Your task to perform on an android device: What's the weather? Image 0: 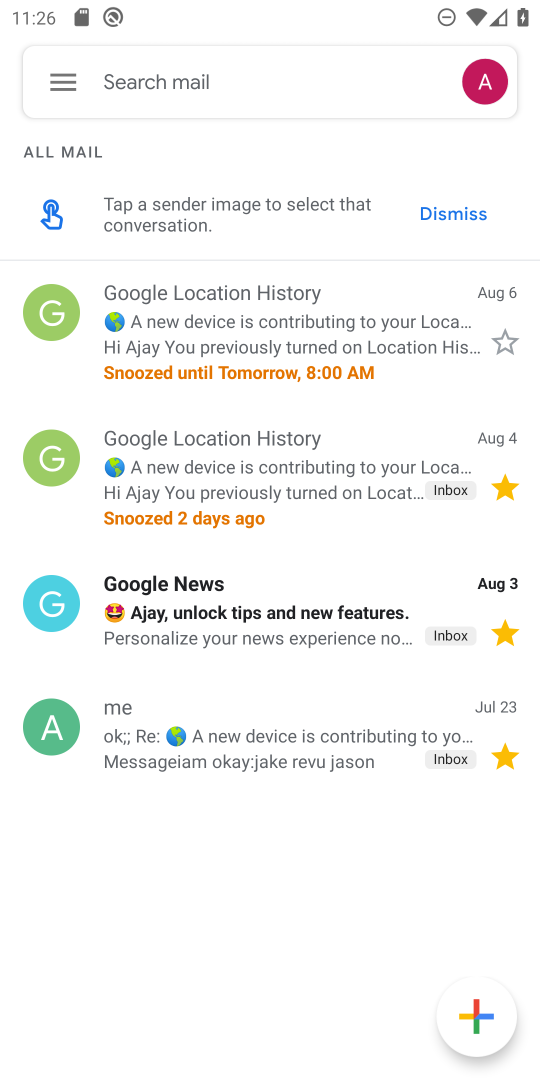
Step 0: press home button
Your task to perform on an android device: What's the weather? Image 1: 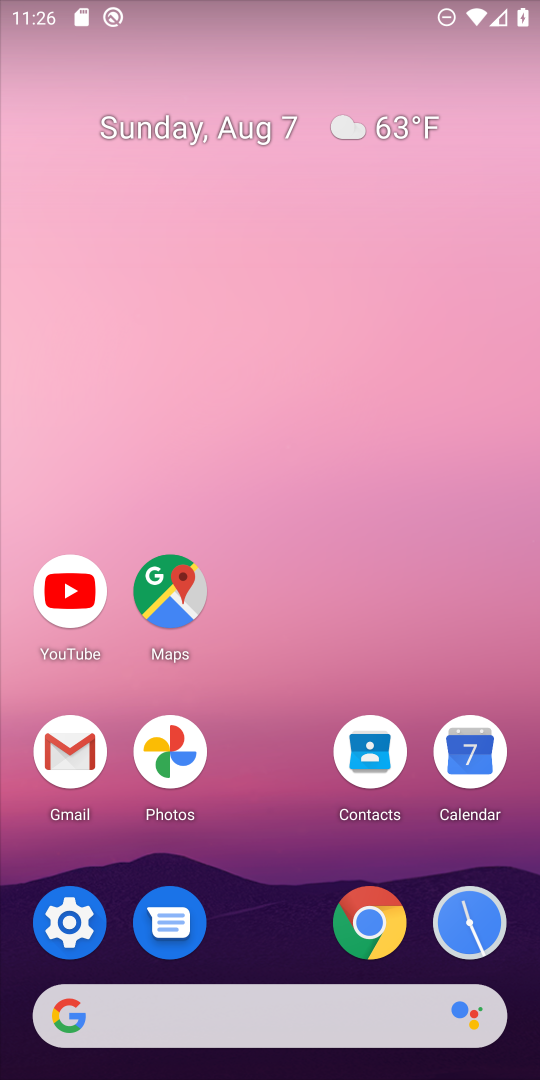
Step 1: click (152, 1002)
Your task to perform on an android device: What's the weather? Image 2: 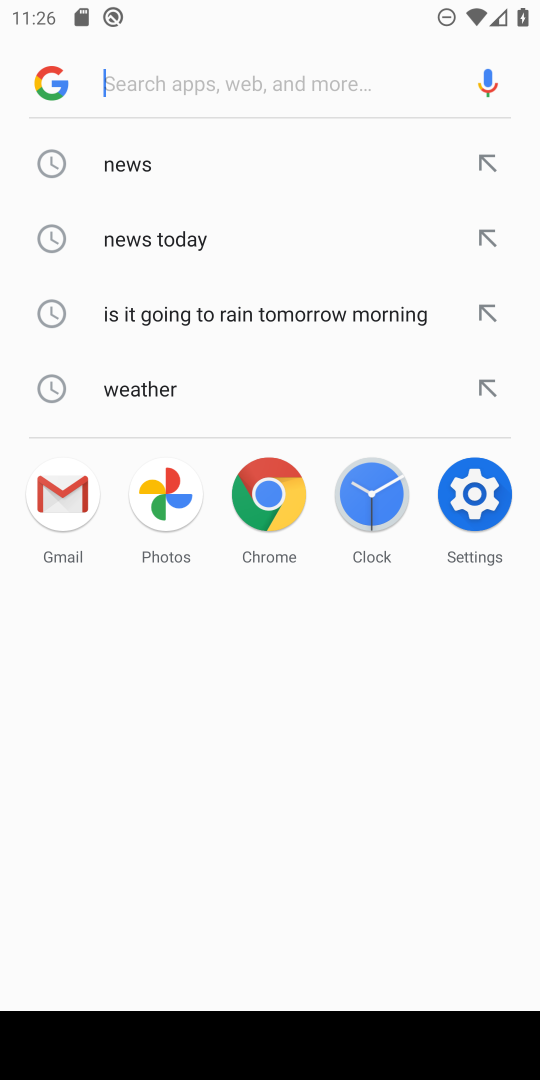
Step 2: click (138, 385)
Your task to perform on an android device: What's the weather? Image 3: 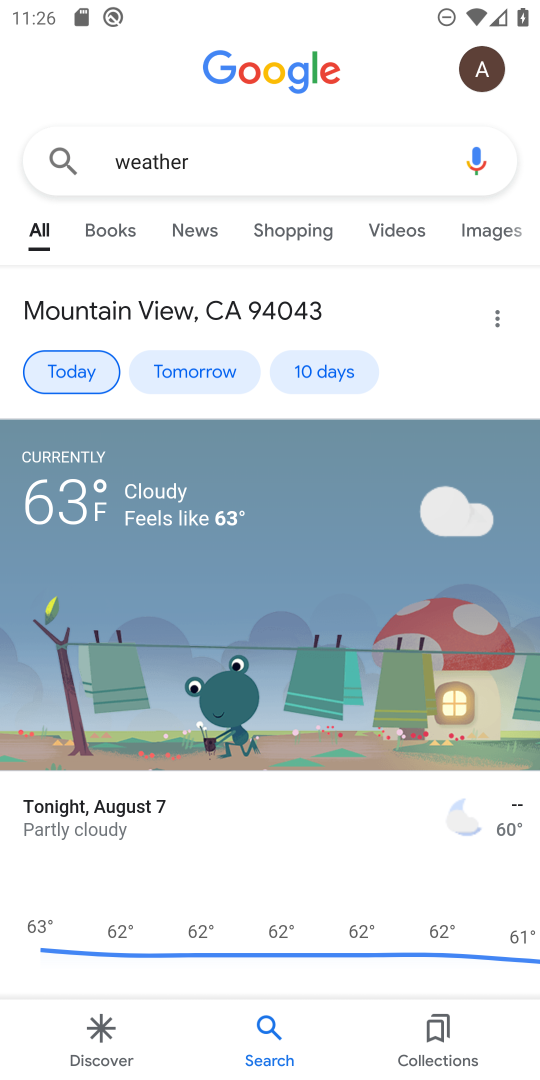
Step 3: task complete